Your task to perform on an android device: visit the assistant section in the google photos Image 0: 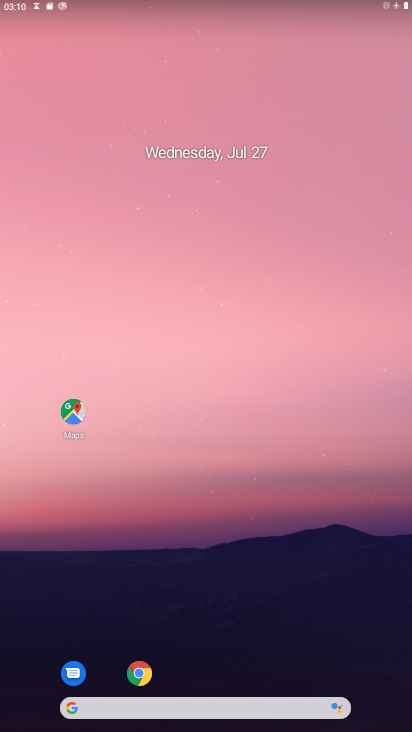
Step 0: drag from (144, 612) to (194, 87)
Your task to perform on an android device: visit the assistant section in the google photos Image 1: 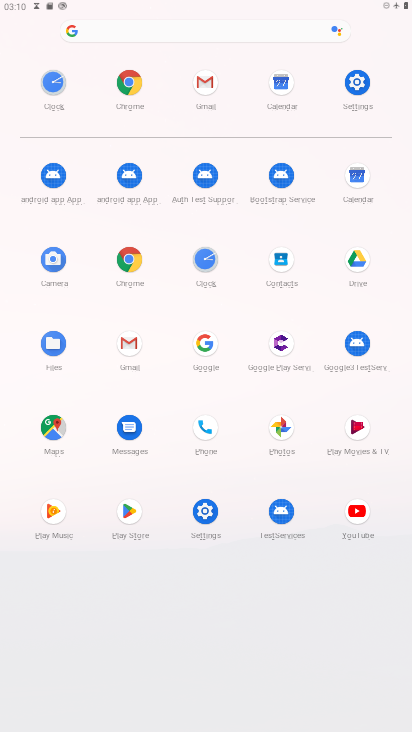
Step 1: click (290, 418)
Your task to perform on an android device: visit the assistant section in the google photos Image 2: 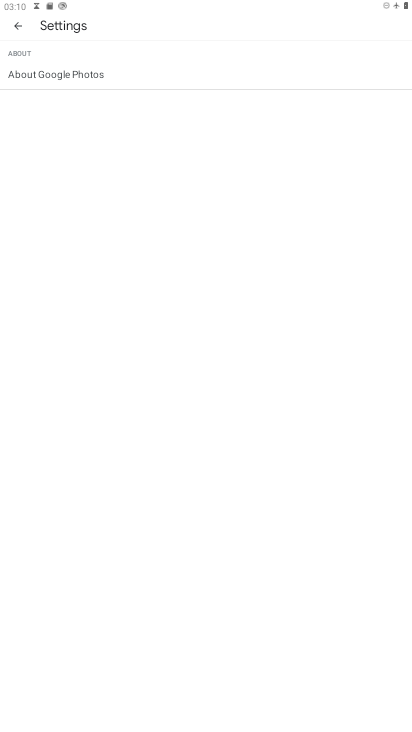
Step 2: click (18, 20)
Your task to perform on an android device: visit the assistant section in the google photos Image 3: 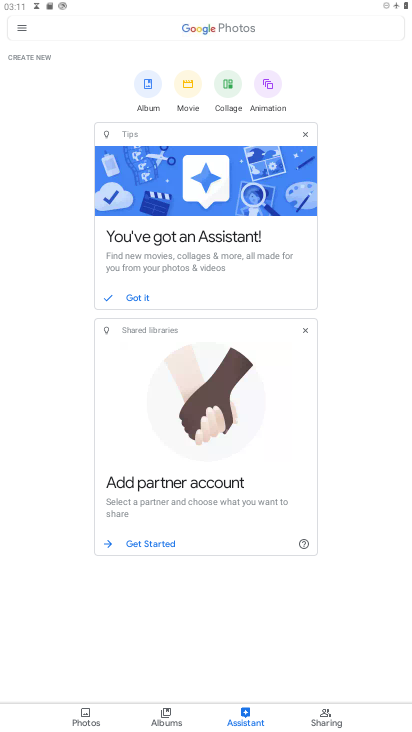
Step 3: task complete